Your task to perform on an android device: delete browsing data in the chrome app Image 0: 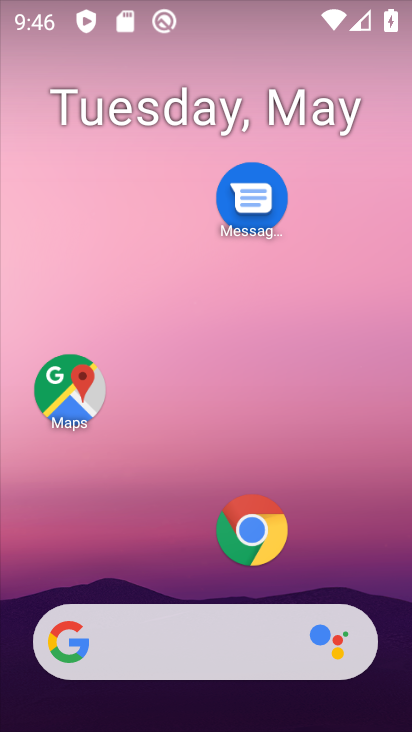
Step 0: drag from (206, 580) to (188, 219)
Your task to perform on an android device: delete browsing data in the chrome app Image 1: 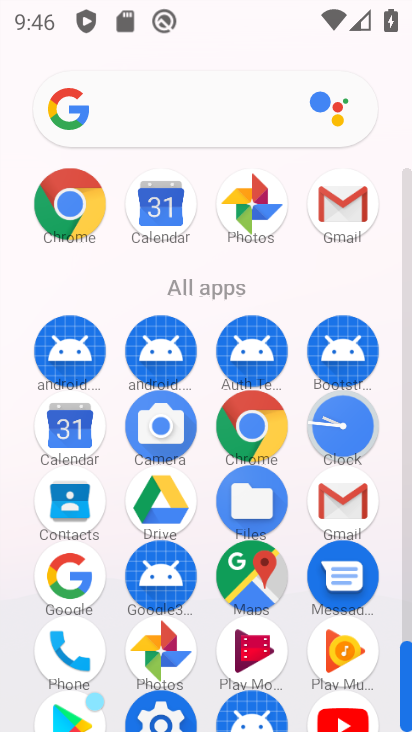
Step 1: click (66, 214)
Your task to perform on an android device: delete browsing data in the chrome app Image 2: 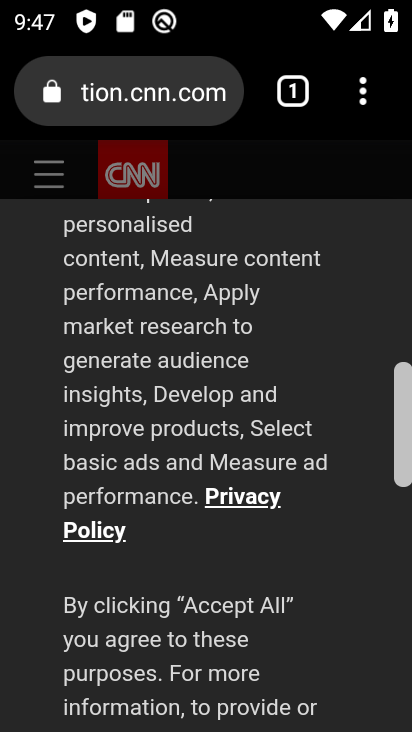
Step 2: click (369, 99)
Your task to perform on an android device: delete browsing data in the chrome app Image 3: 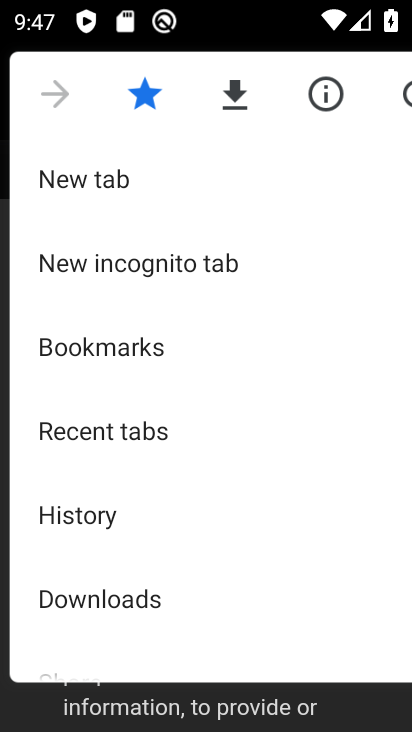
Step 3: click (108, 523)
Your task to perform on an android device: delete browsing data in the chrome app Image 4: 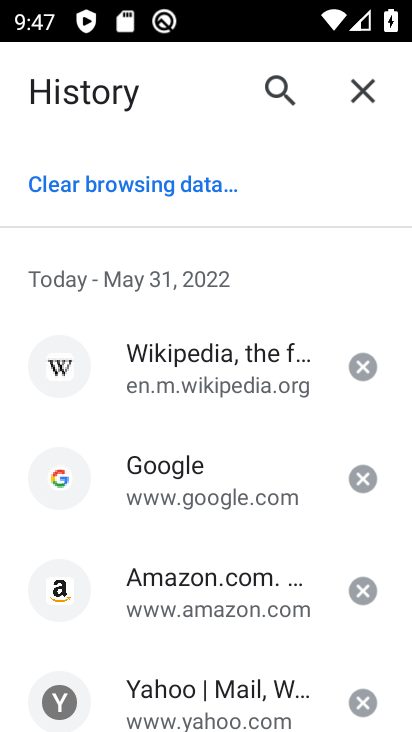
Step 4: click (159, 182)
Your task to perform on an android device: delete browsing data in the chrome app Image 5: 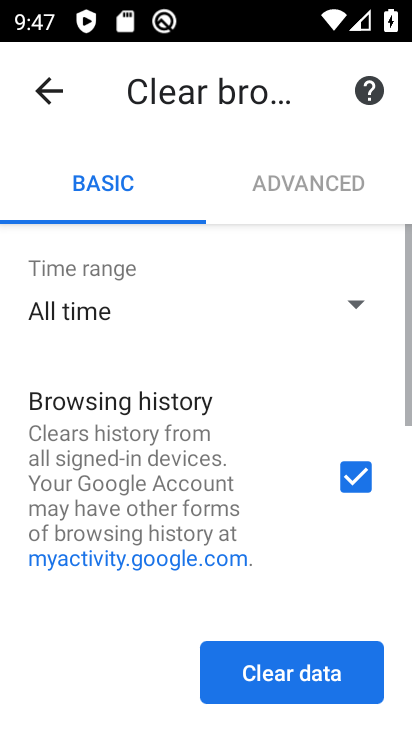
Step 5: drag from (222, 556) to (224, 271)
Your task to perform on an android device: delete browsing data in the chrome app Image 6: 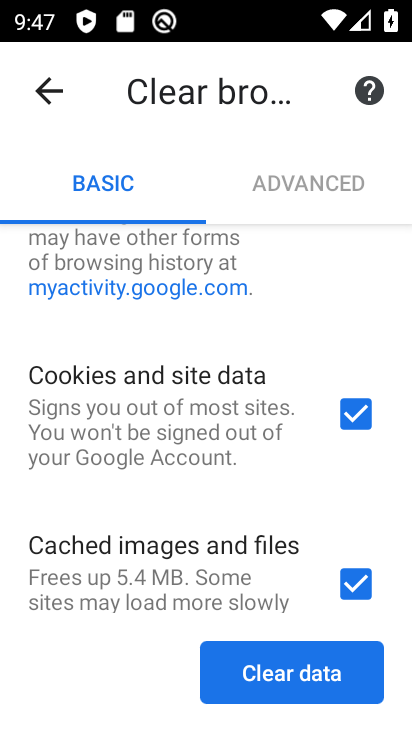
Step 6: click (264, 678)
Your task to perform on an android device: delete browsing data in the chrome app Image 7: 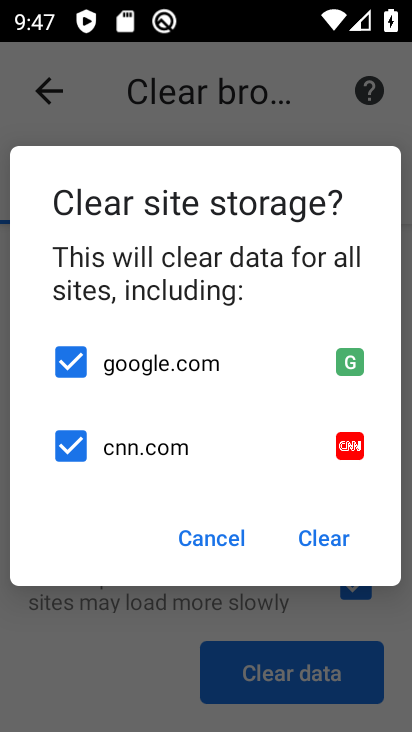
Step 7: click (323, 540)
Your task to perform on an android device: delete browsing data in the chrome app Image 8: 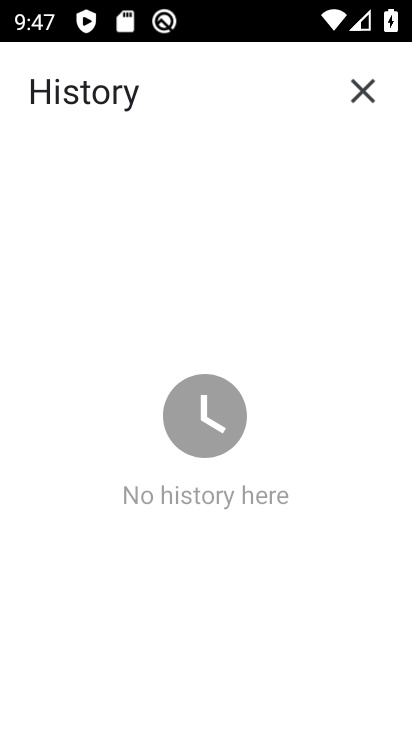
Step 8: task complete